Your task to perform on an android device: Play the last video I watched on Youtube Image 0: 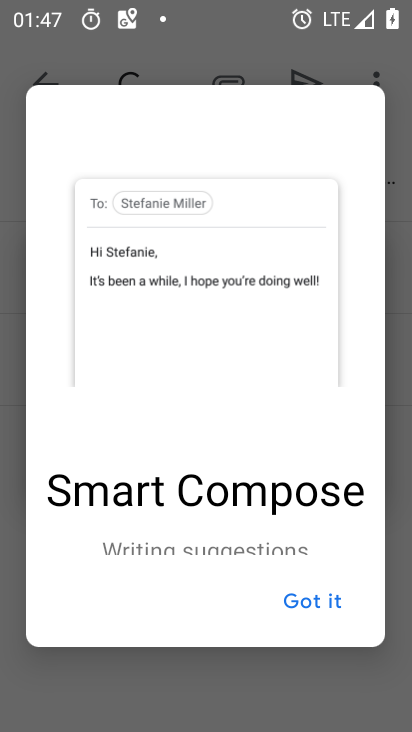
Step 0: press home button
Your task to perform on an android device: Play the last video I watched on Youtube Image 1: 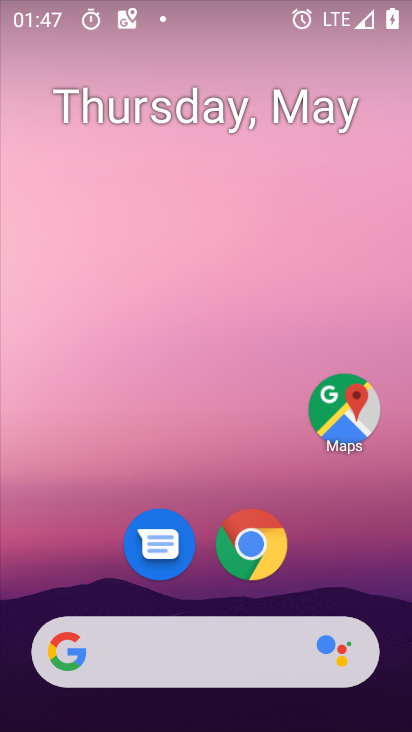
Step 1: drag from (391, 541) to (391, 237)
Your task to perform on an android device: Play the last video I watched on Youtube Image 2: 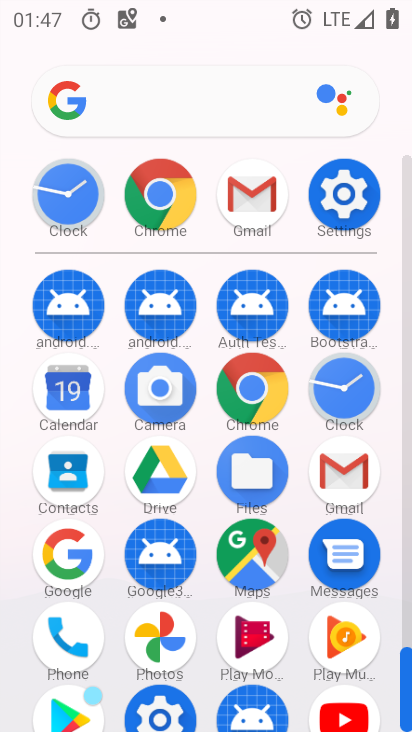
Step 2: drag from (386, 448) to (396, 294)
Your task to perform on an android device: Play the last video I watched on Youtube Image 3: 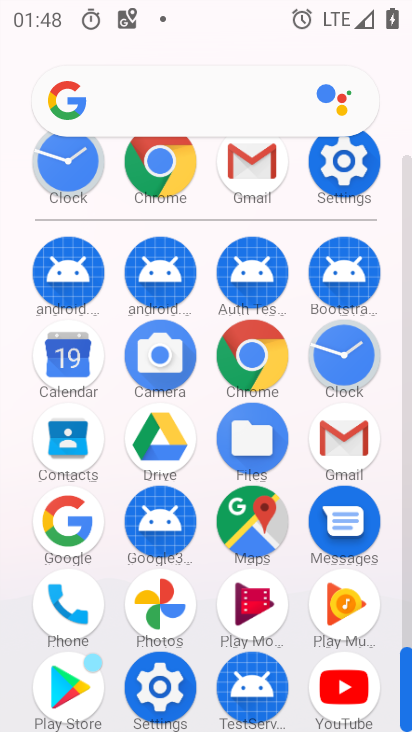
Step 3: click (345, 695)
Your task to perform on an android device: Play the last video I watched on Youtube Image 4: 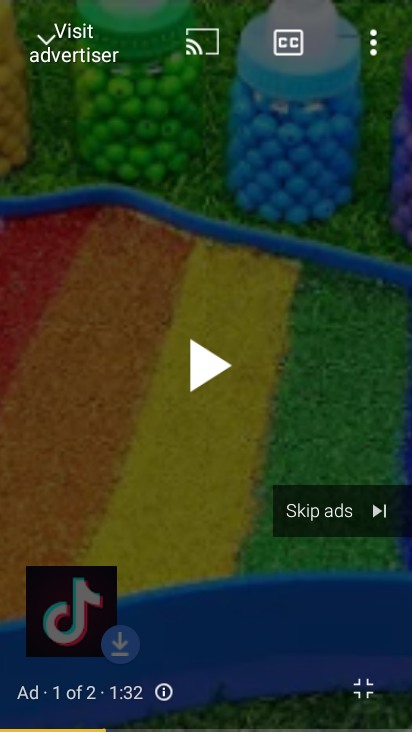
Step 4: click (347, 514)
Your task to perform on an android device: Play the last video I watched on Youtube Image 5: 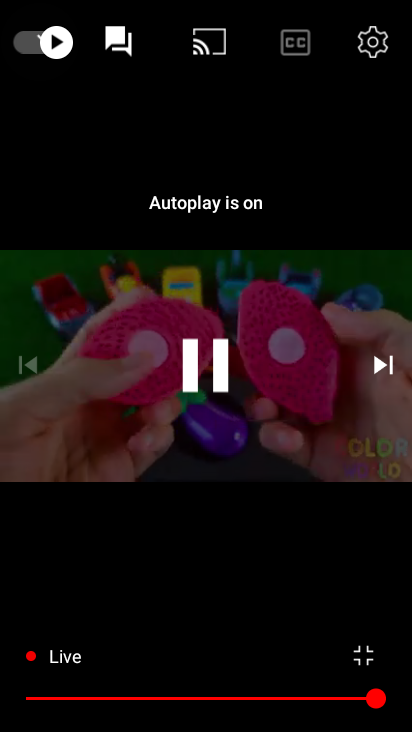
Step 5: task complete